Your task to perform on an android device: Play the last video I watched on Youtube Image 0: 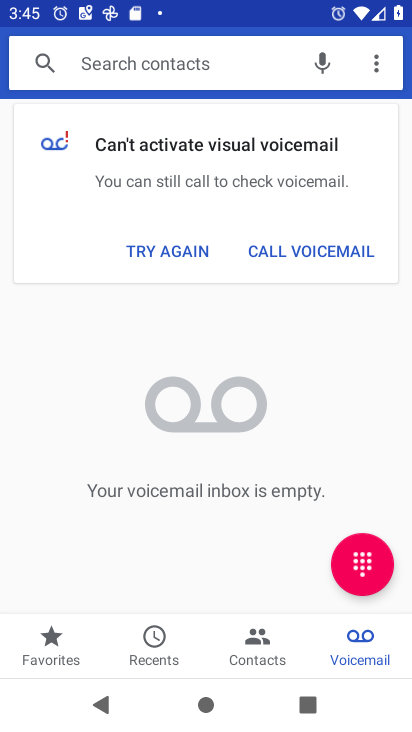
Step 0: press home button
Your task to perform on an android device: Play the last video I watched on Youtube Image 1: 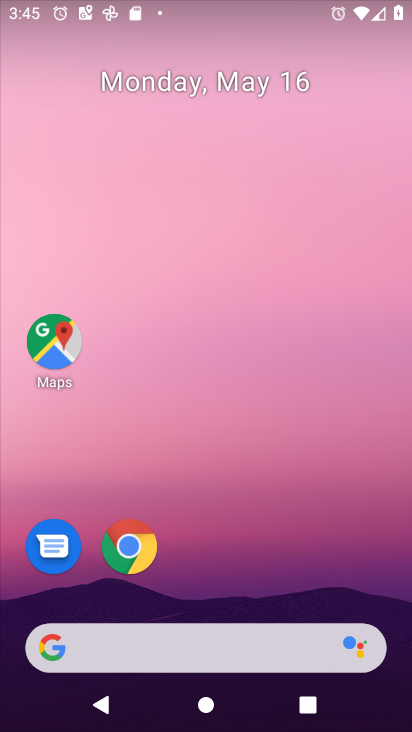
Step 1: drag from (350, 589) to (347, 146)
Your task to perform on an android device: Play the last video I watched on Youtube Image 2: 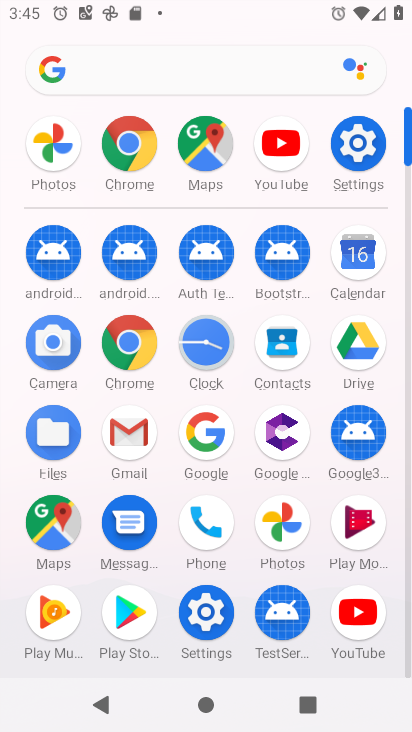
Step 2: click (281, 151)
Your task to perform on an android device: Play the last video I watched on Youtube Image 3: 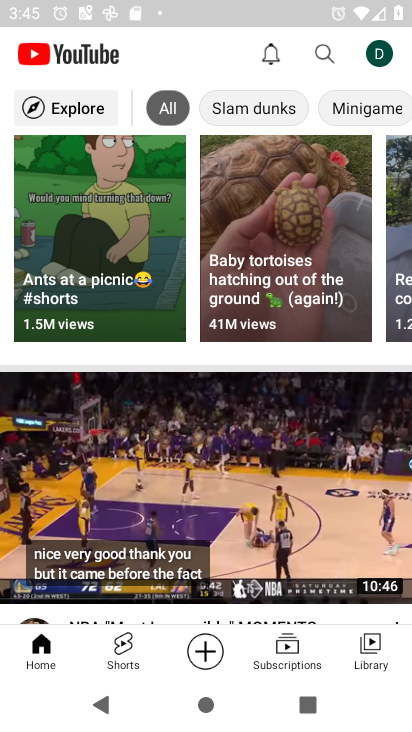
Step 3: click (368, 651)
Your task to perform on an android device: Play the last video I watched on Youtube Image 4: 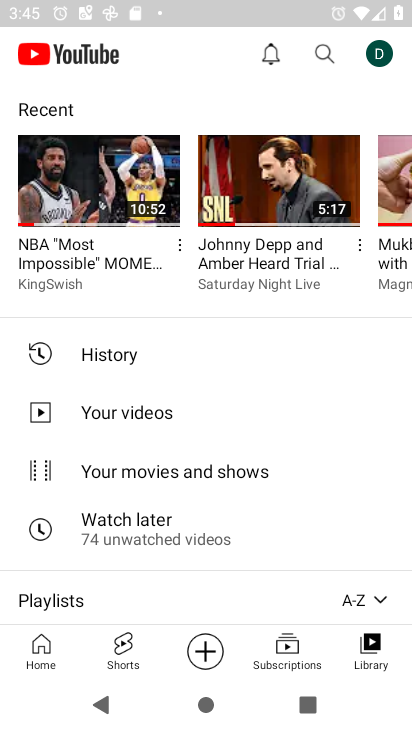
Step 4: click (102, 160)
Your task to perform on an android device: Play the last video I watched on Youtube Image 5: 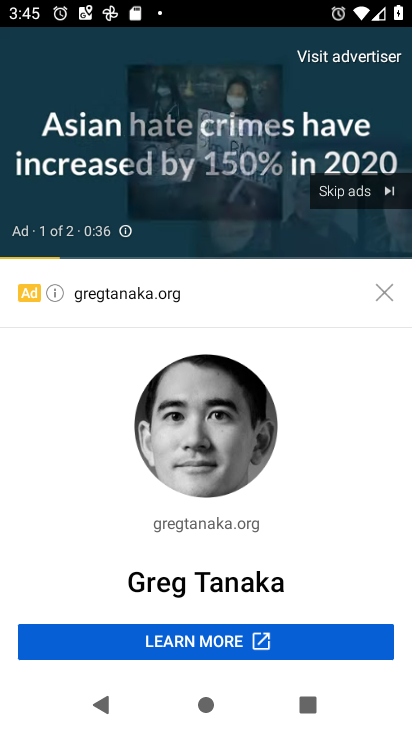
Step 5: click (362, 193)
Your task to perform on an android device: Play the last video I watched on Youtube Image 6: 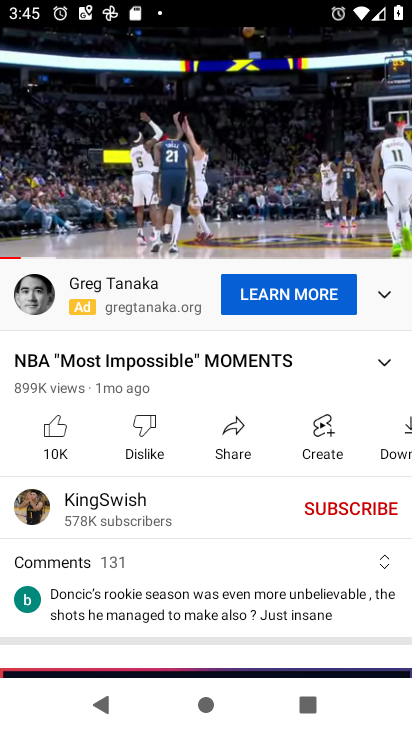
Step 6: task complete